Your task to perform on an android device: Search for vegetarian restaurants on Maps Image 0: 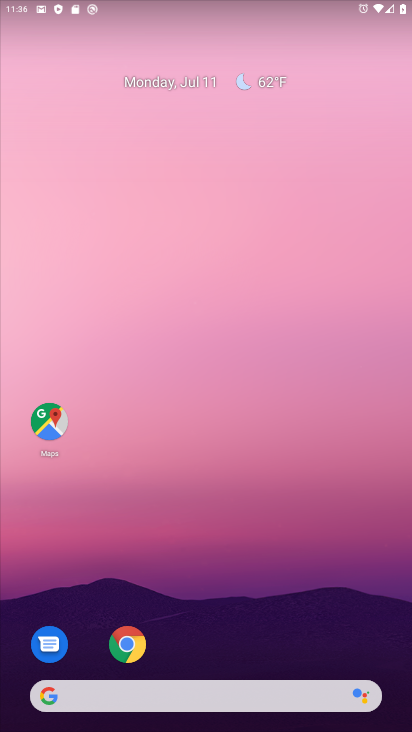
Step 0: drag from (203, 656) to (232, 131)
Your task to perform on an android device: Search for vegetarian restaurants on Maps Image 1: 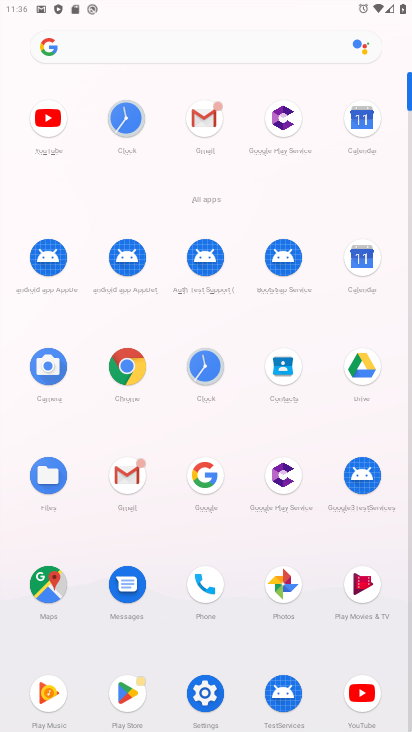
Step 1: click (58, 592)
Your task to perform on an android device: Search for vegetarian restaurants on Maps Image 2: 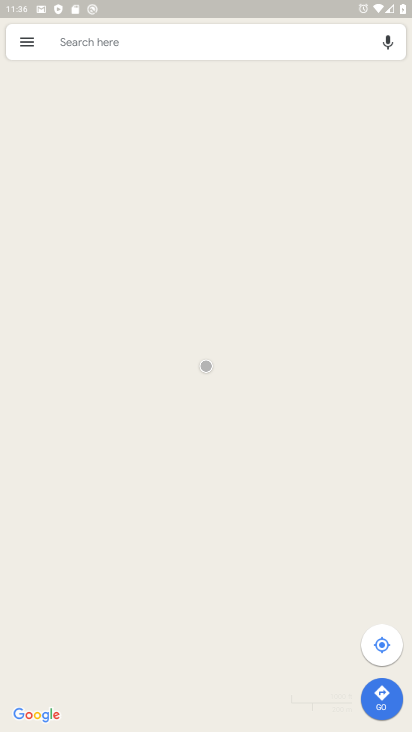
Step 2: click (122, 51)
Your task to perform on an android device: Search for vegetarian restaurants on Maps Image 3: 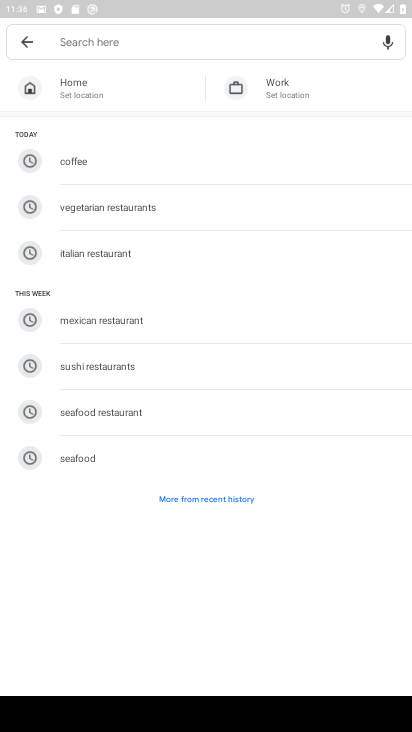
Step 3: type "vegetarian restaurants"
Your task to perform on an android device: Search for vegetarian restaurants on Maps Image 4: 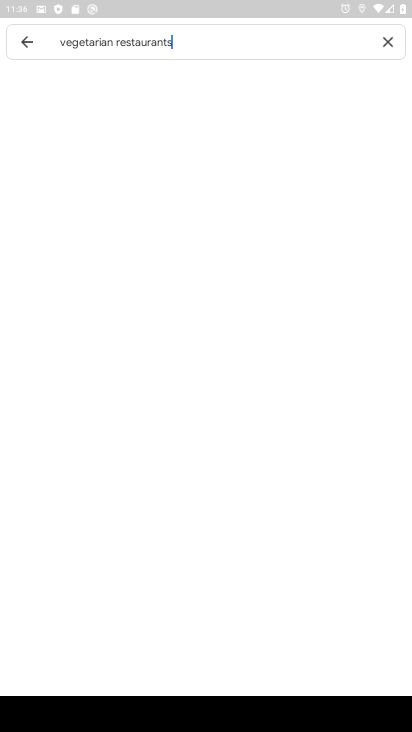
Step 4: type ""
Your task to perform on an android device: Search for vegetarian restaurants on Maps Image 5: 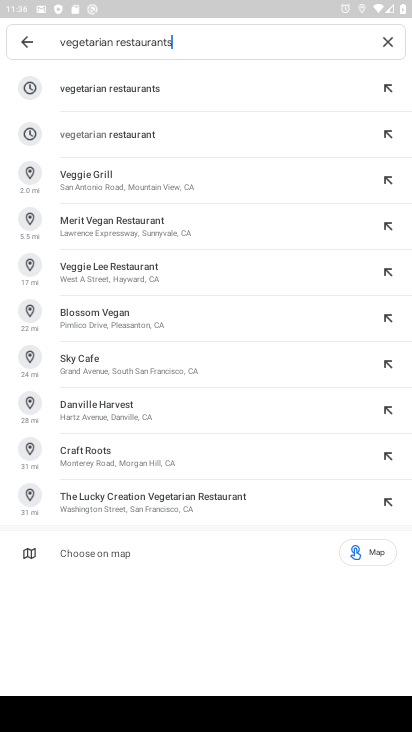
Step 5: click (82, 99)
Your task to perform on an android device: Search for vegetarian restaurants on Maps Image 6: 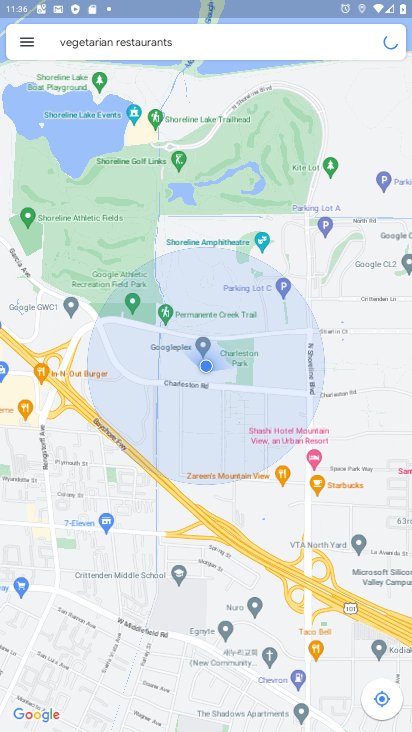
Step 6: task complete